Your task to perform on an android device: Go to display settings Image 0: 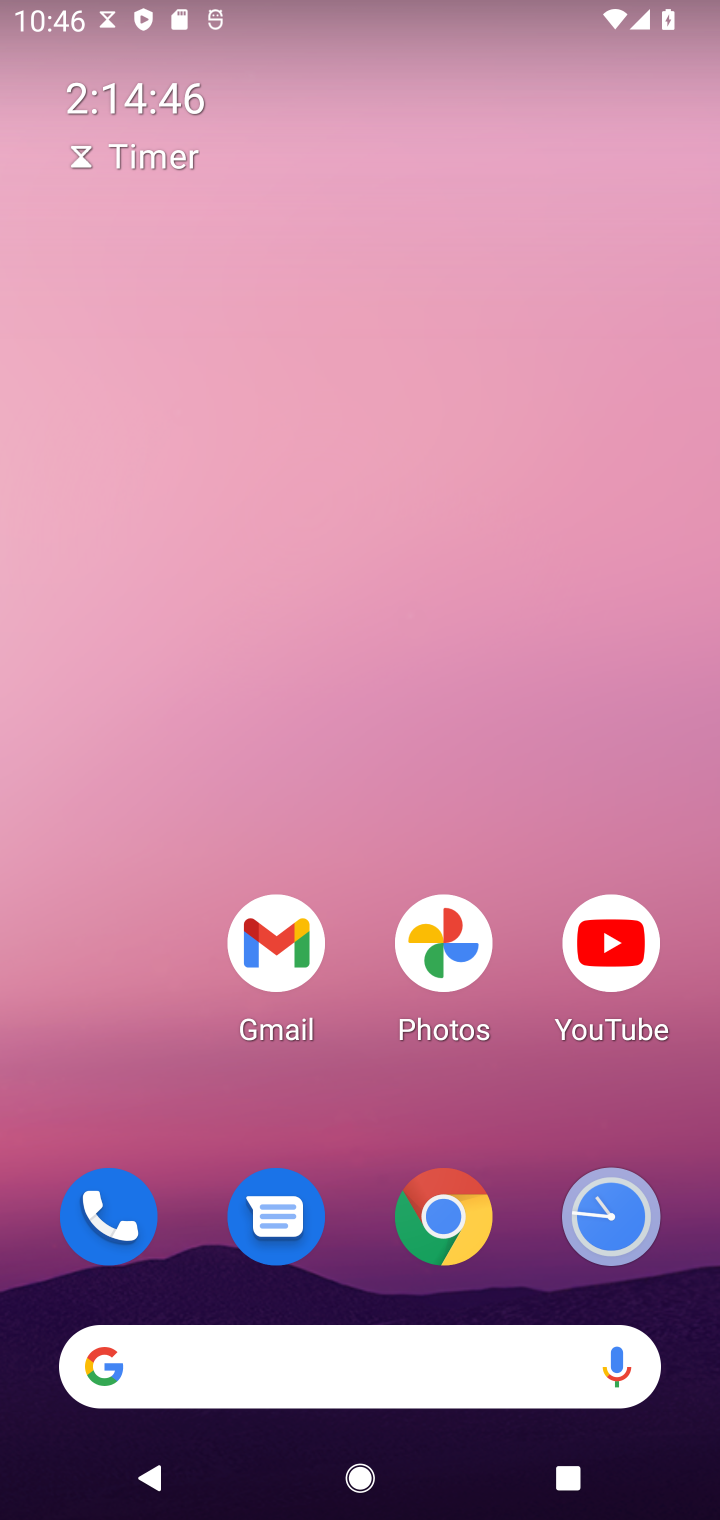
Step 0: drag from (125, 1054) to (299, 3)
Your task to perform on an android device: Go to display settings Image 1: 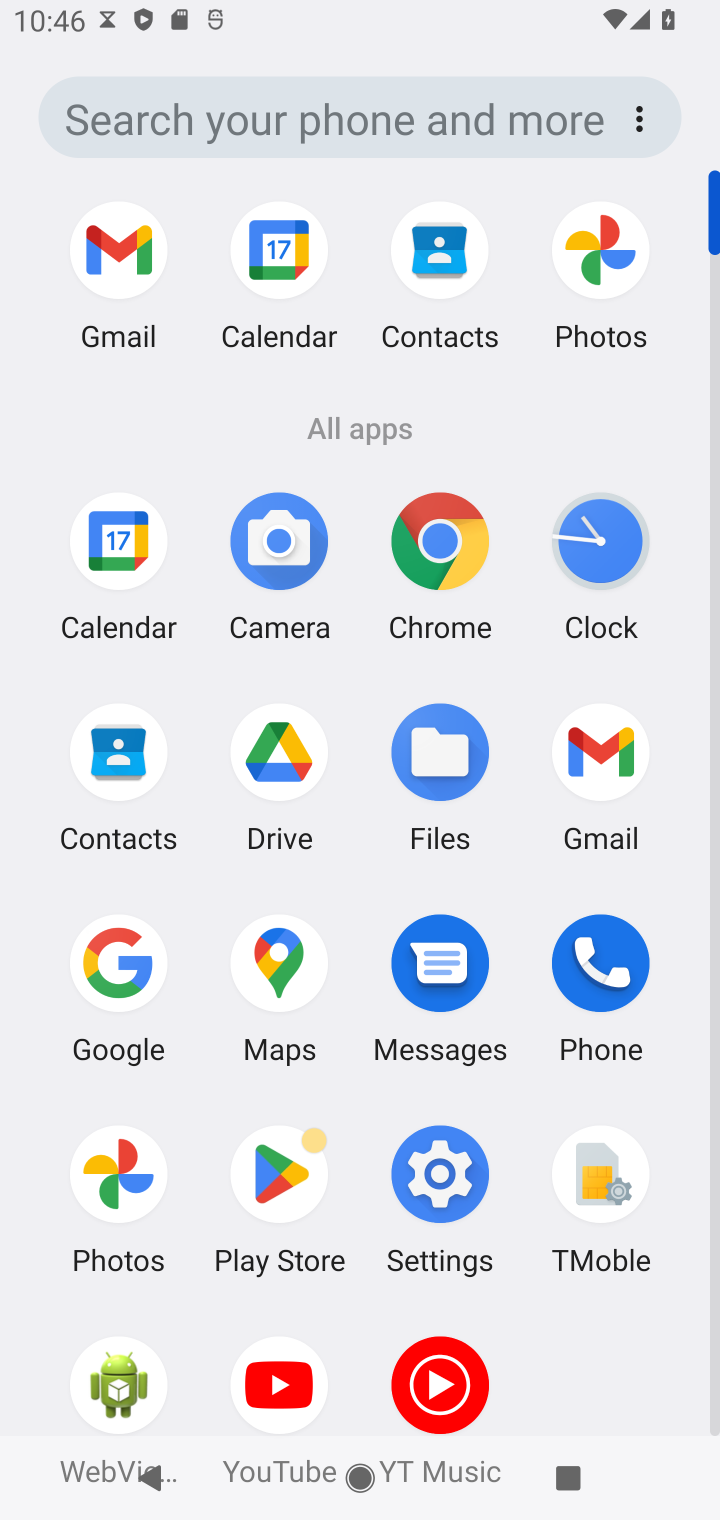
Step 1: click (436, 1162)
Your task to perform on an android device: Go to display settings Image 2: 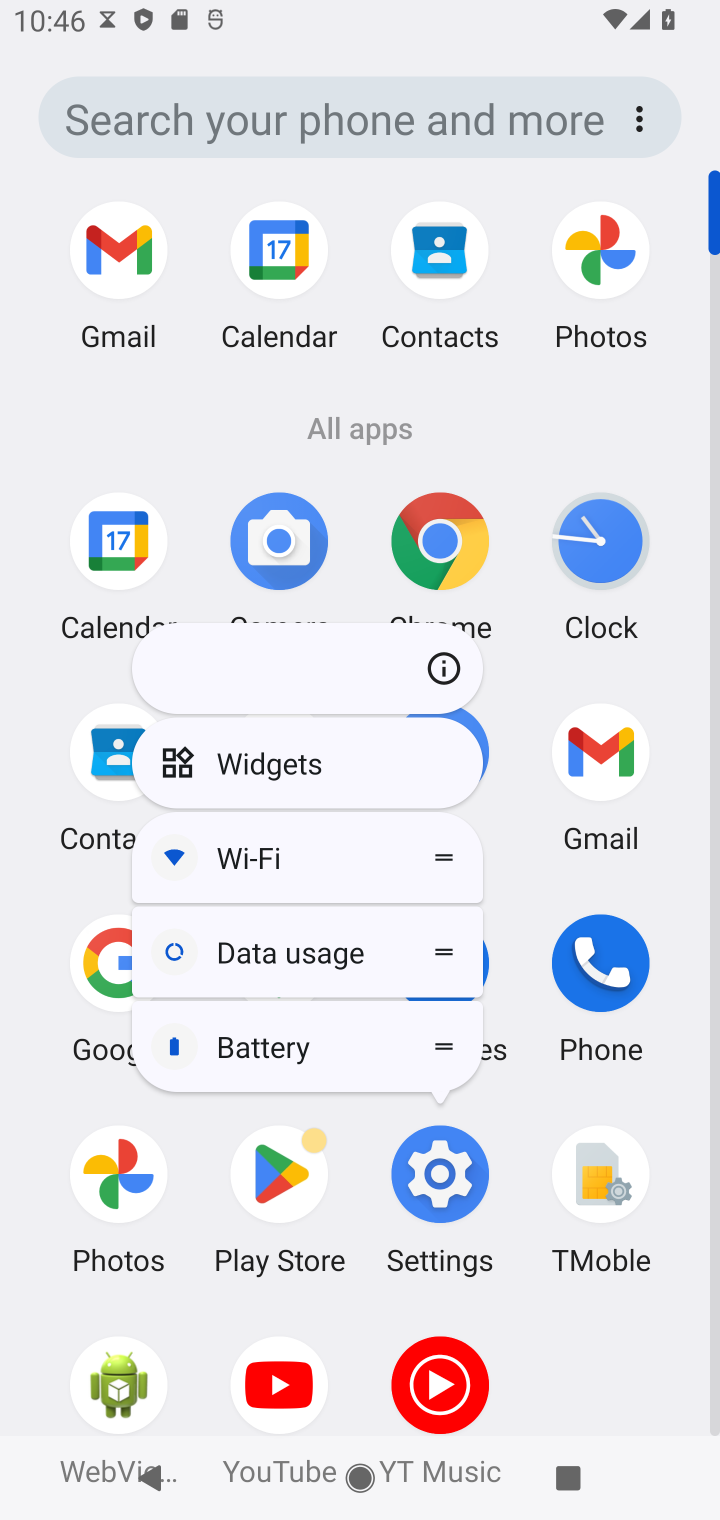
Step 2: click (442, 1176)
Your task to perform on an android device: Go to display settings Image 3: 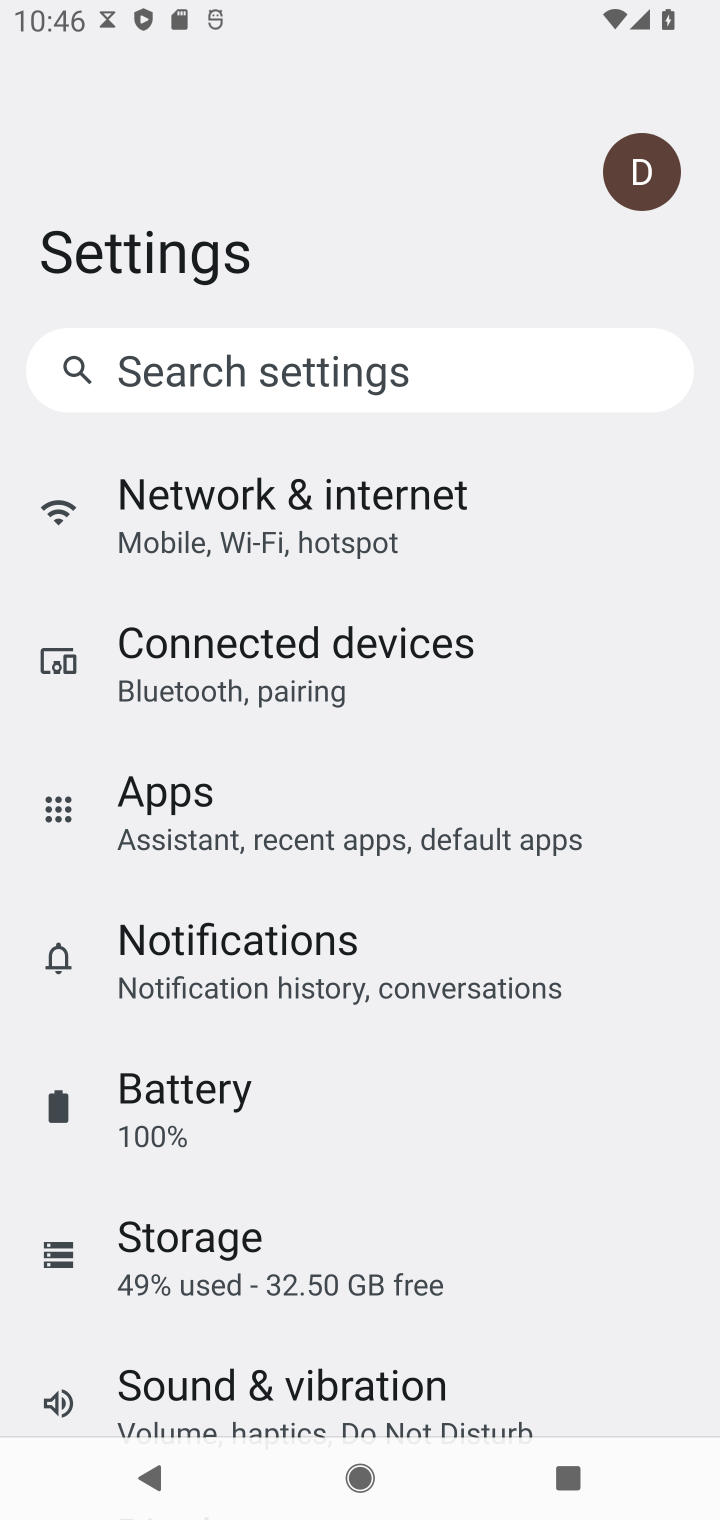
Step 3: drag from (287, 1280) to (444, 416)
Your task to perform on an android device: Go to display settings Image 4: 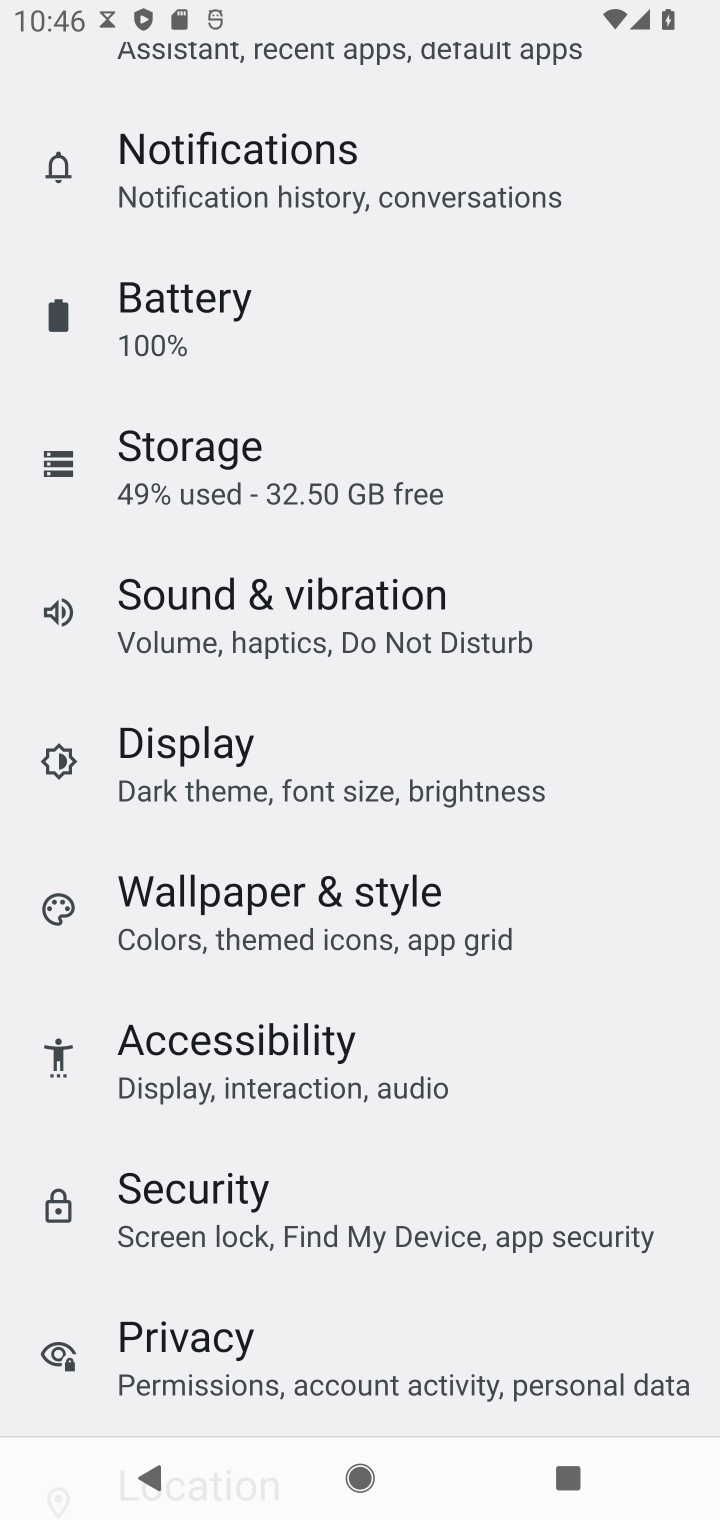
Step 4: click (274, 767)
Your task to perform on an android device: Go to display settings Image 5: 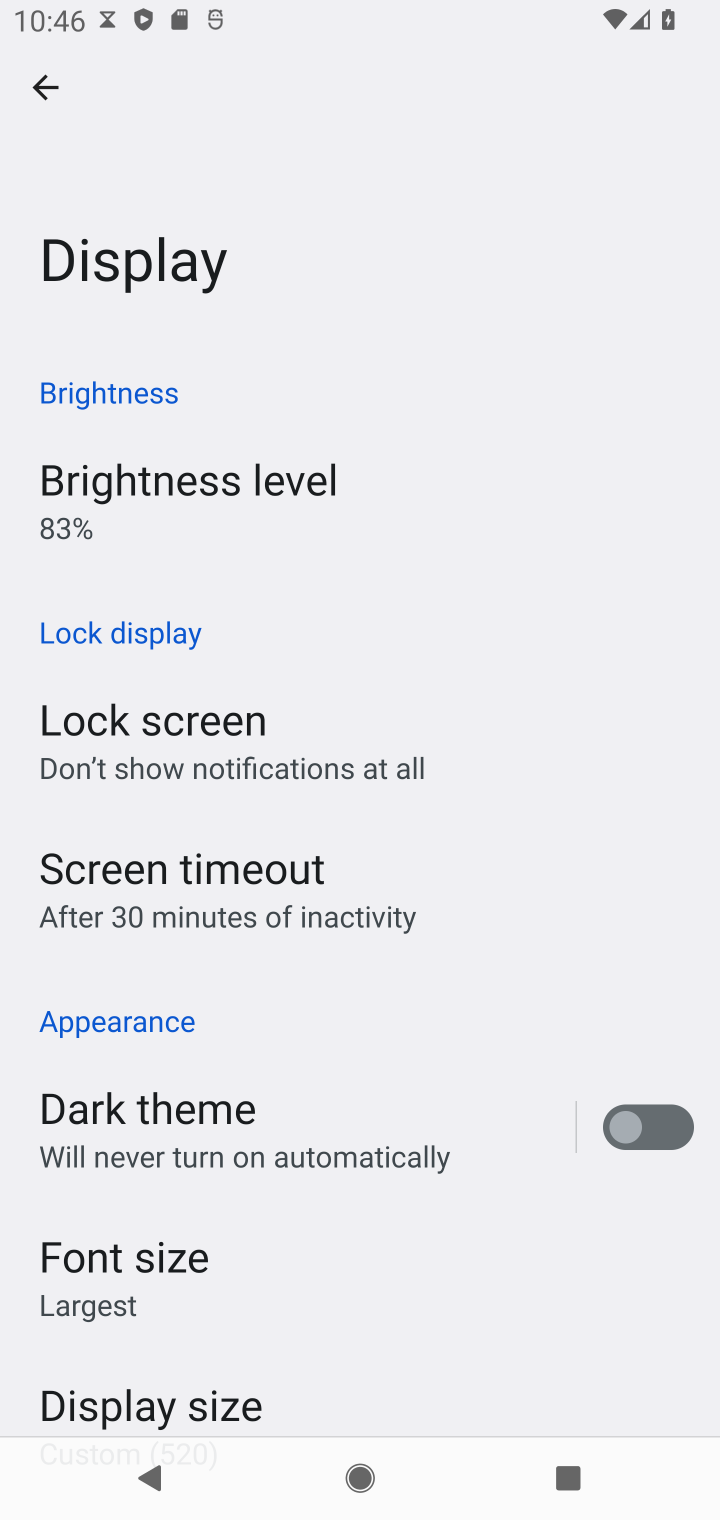
Step 5: task complete